Your task to perform on an android device: turn off smart reply in the gmail app Image 0: 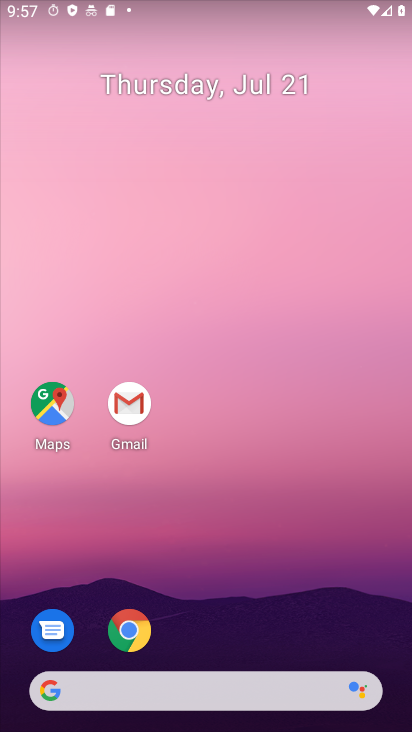
Step 0: drag from (202, 428) to (202, 179)
Your task to perform on an android device: turn off smart reply in the gmail app Image 1: 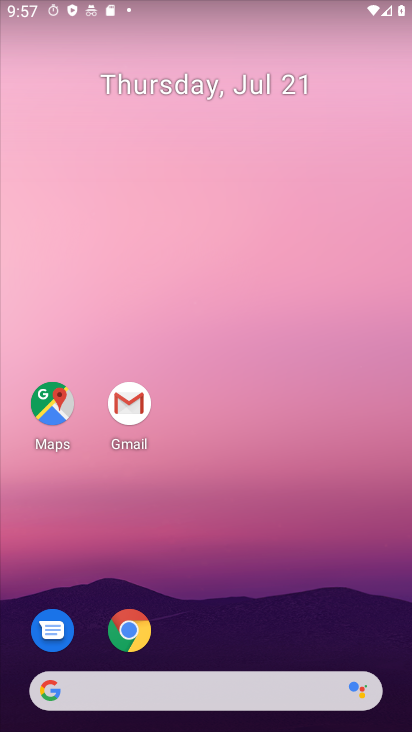
Step 1: drag from (267, 684) to (244, 281)
Your task to perform on an android device: turn off smart reply in the gmail app Image 2: 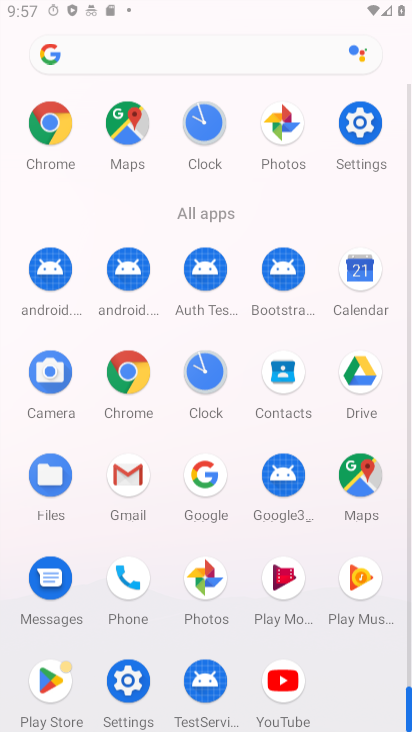
Step 2: drag from (246, 589) to (188, 139)
Your task to perform on an android device: turn off smart reply in the gmail app Image 3: 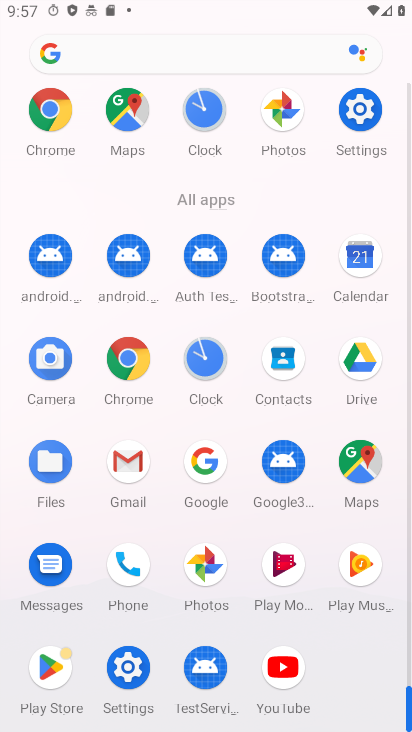
Step 3: drag from (140, 459) to (169, 437)
Your task to perform on an android device: turn off smart reply in the gmail app Image 4: 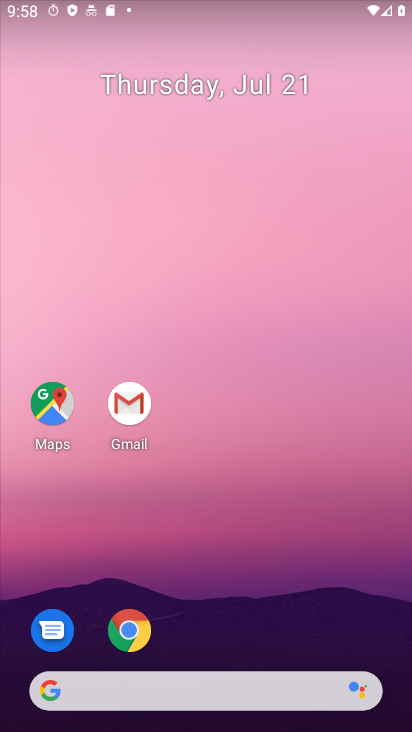
Step 4: drag from (221, 566) to (117, 0)
Your task to perform on an android device: turn off smart reply in the gmail app Image 5: 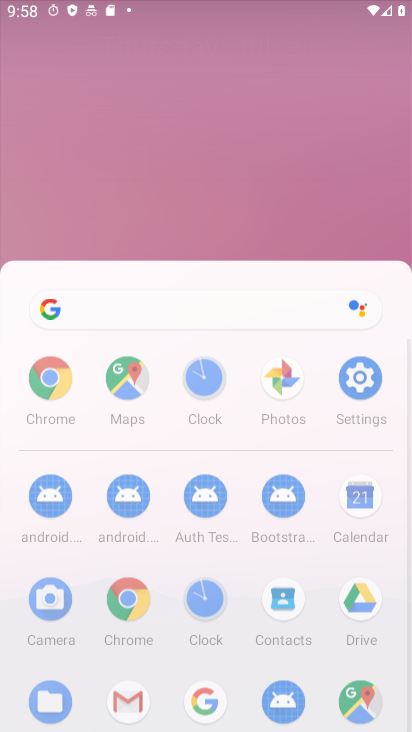
Step 5: drag from (257, 461) to (217, 33)
Your task to perform on an android device: turn off smart reply in the gmail app Image 6: 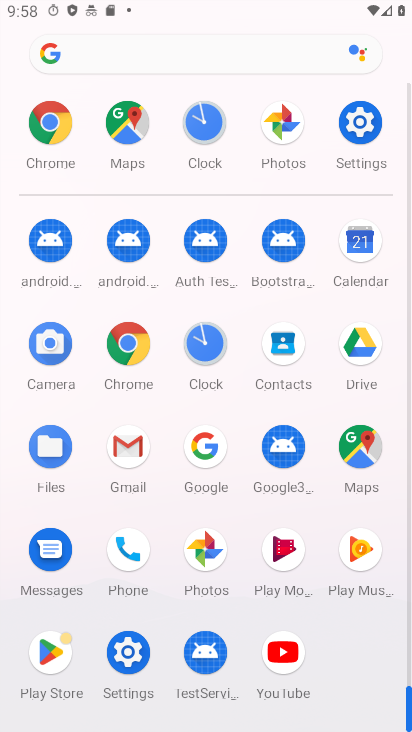
Step 6: click (128, 462)
Your task to perform on an android device: turn off smart reply in the gmail app Image 7: 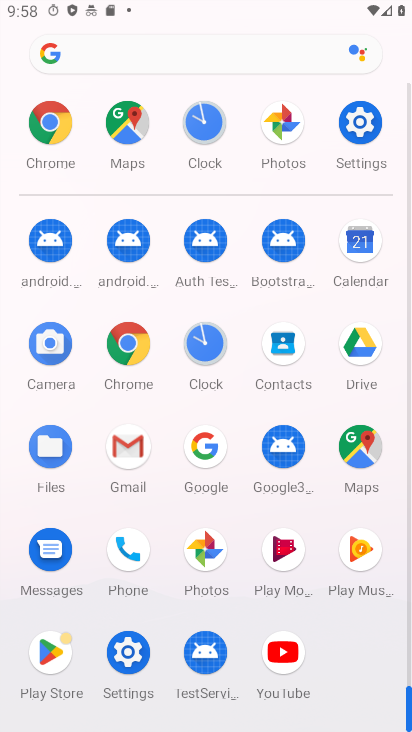
Step 7: click (121, 452)
Your task to perform on an android device: turn off smart reply in the gmail app Image 8: 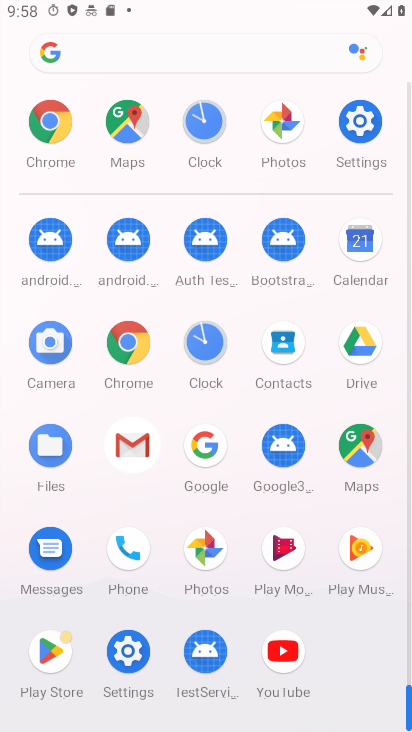
Step 8: click (122, 452)
Your task to perform on an android device: turn off smart reply in the gmail app Image 9: 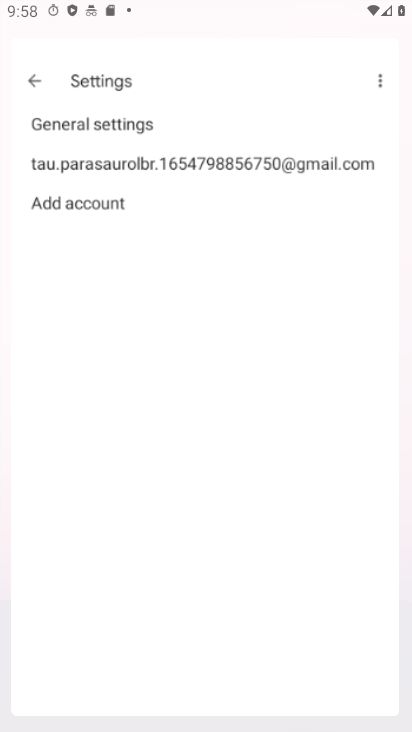
Step 9: click (123, 452)
Your task to perform on an android device: turn off smart reply in the gmail app Image 10: 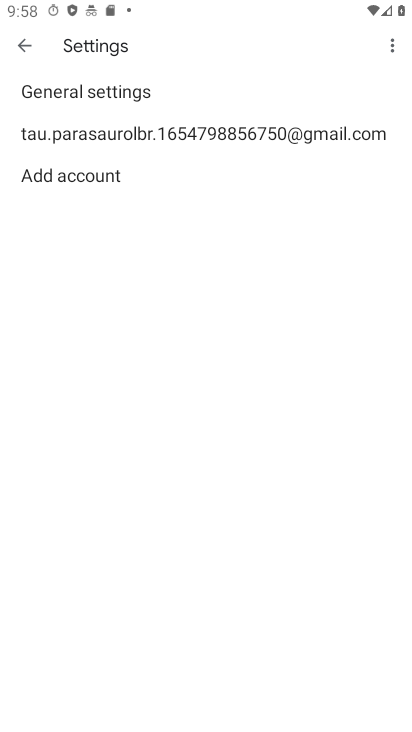
Step 10: click (99, 135)
Your task to perform on an android device: turn off smart reply in the gmail app Image 11: 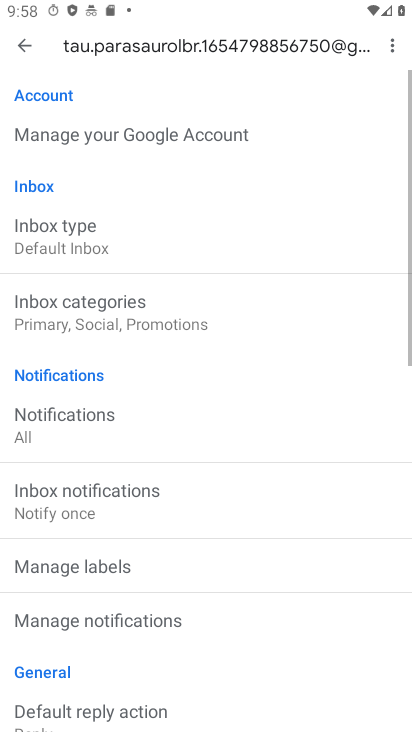
Step 11: drag from (64, 564) to (75, 79)
Your task to perform on an android device: turn off smart reply in the gmail app Image 12: 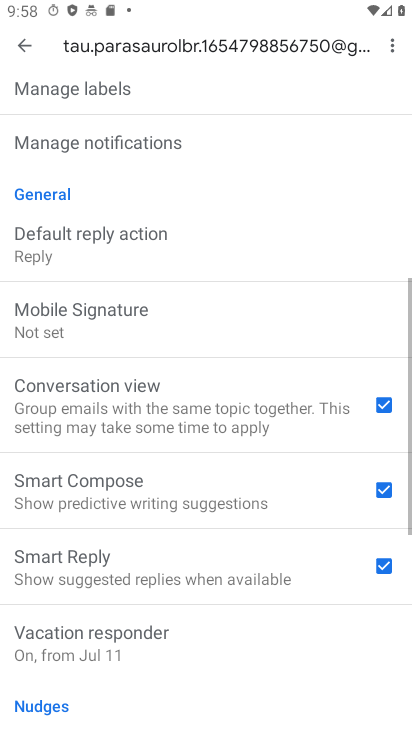
Step 12: drag from (138, 587) to (138, 285)
Your task to perform on an android device: turn off smart reply in the gmail app Image 13: 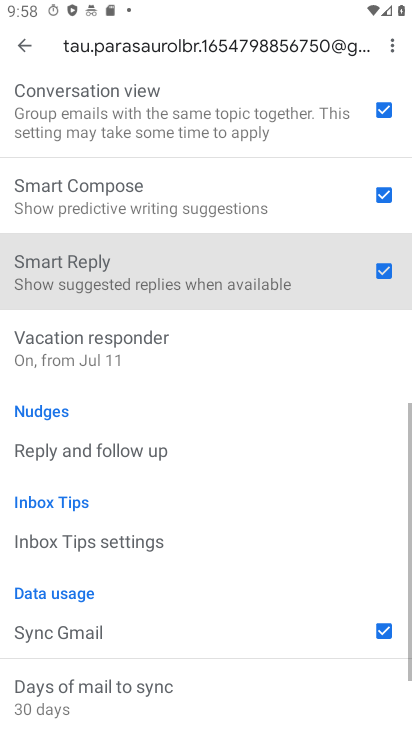
Step 13: drag from (141, 557) to (141, 394)
Your task to perform on an android device: turn off smart reply in the gmail app Image 14: 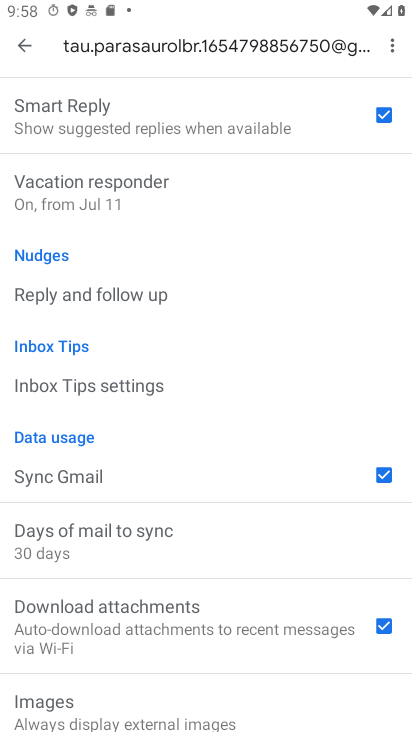
Step 14: click (381, 102)
Your task to perform on an android device: turn off smart reply in the gmail app Image 15: 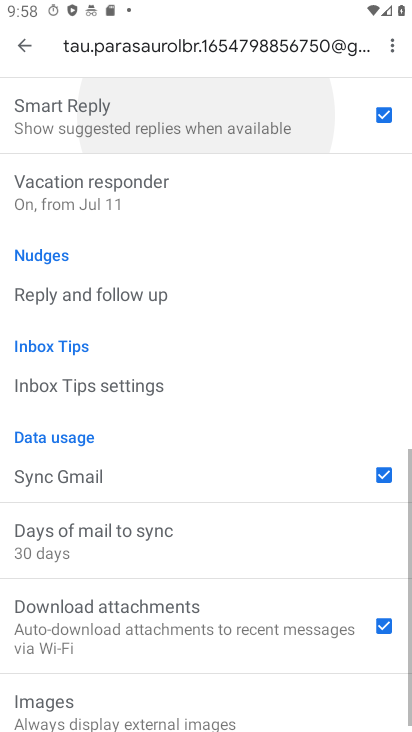
Step 15: click (382, 102)
Your task to perform on an android device: turn off smart reply in the gmail app Image 16: 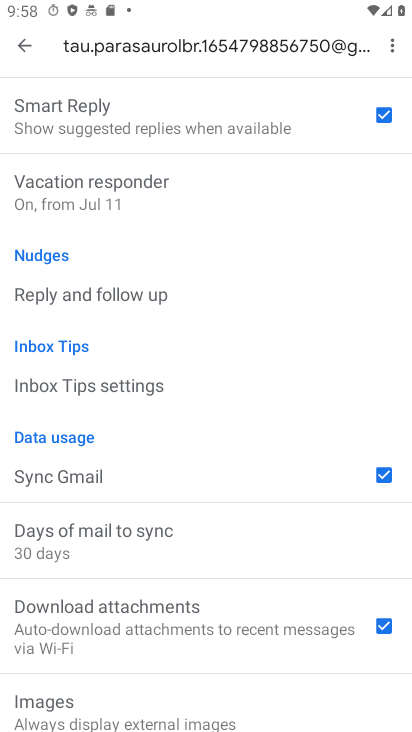
Step 16: click (388, 112)
Your task to perform on an android device: turn off smart reply in the gmail app Image 17: 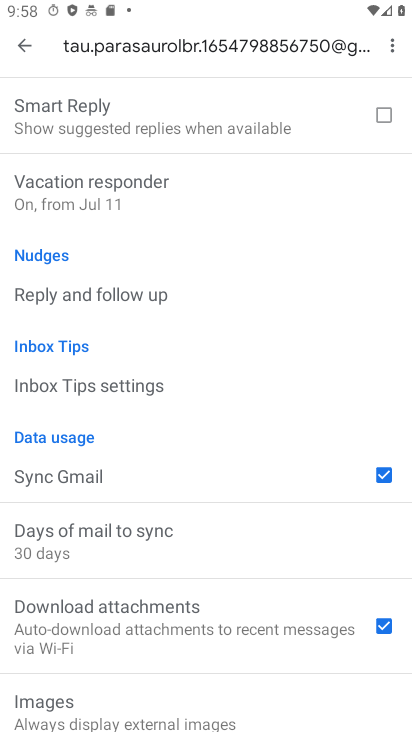
Step 17: task complete